Your task to perform on an android device: Open Wikipedia Image 0: 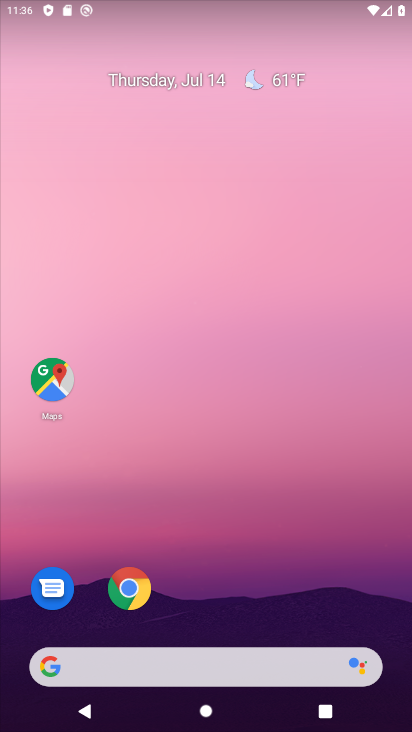
Step 0: drag from (211, 585) to (278, 89)
Your task to perform on an android device: Open Wikipedia Image 1: 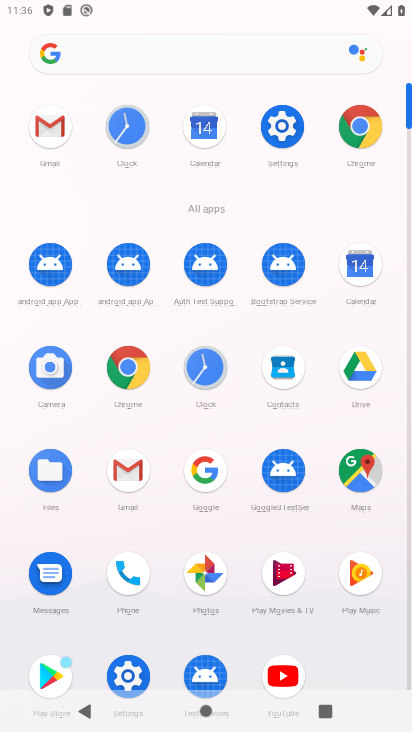
Step 1: click (138, 365)
Your task to perform on an android device: Open Wikipedia Image 2: 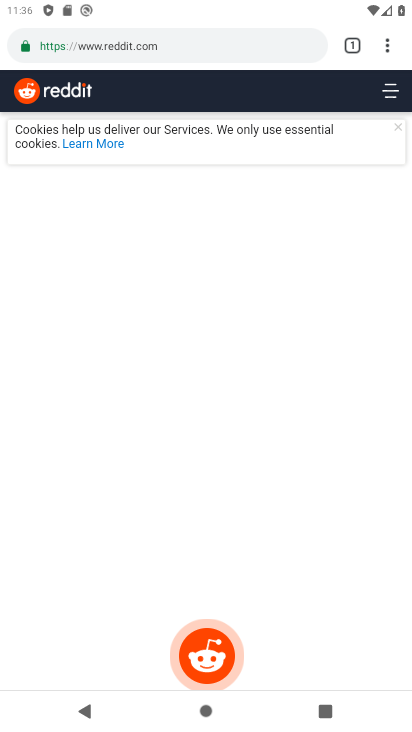
Step 2: click (131, 48)
Your task to perform on an android device: Open Wikipedia Image 3: 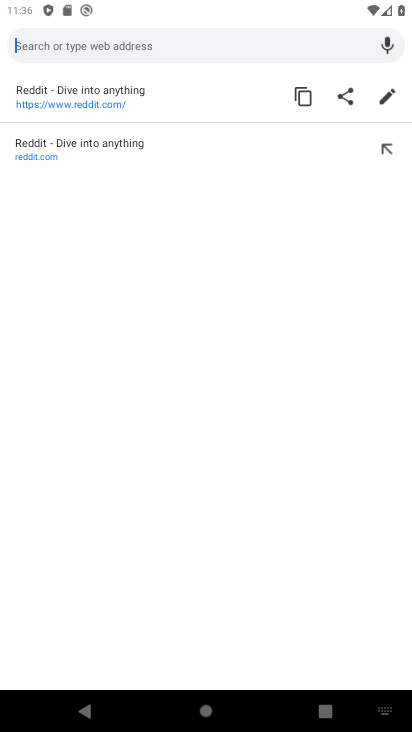
Step 3: type "wikipedia"
Your task to perform on an android device: Open Wikipedia Image 4: 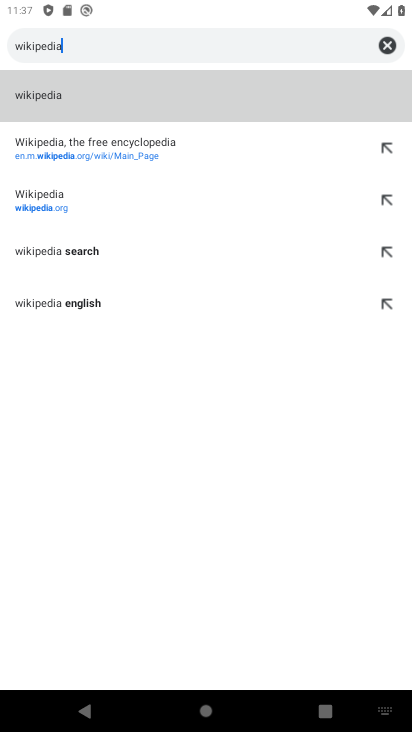
Step 4: click (47, 193)
Your task to perform on an android device: Open Wikipedia Image 5: 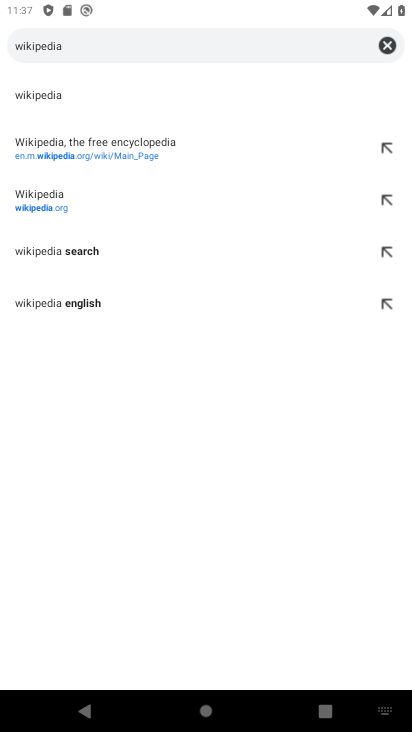
Step 5: click (60, 96)
Your task to perform on an android device: Open Wikipedia Image 6: 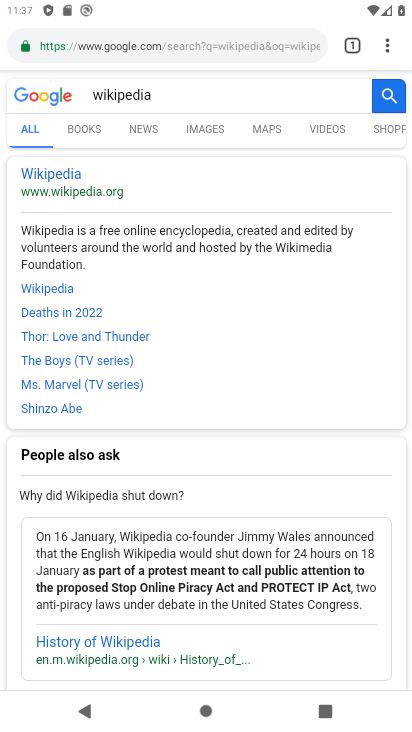
Step 6: click (136, 206)
Your task to perform on an android device: Open Wikipedia Image 7: 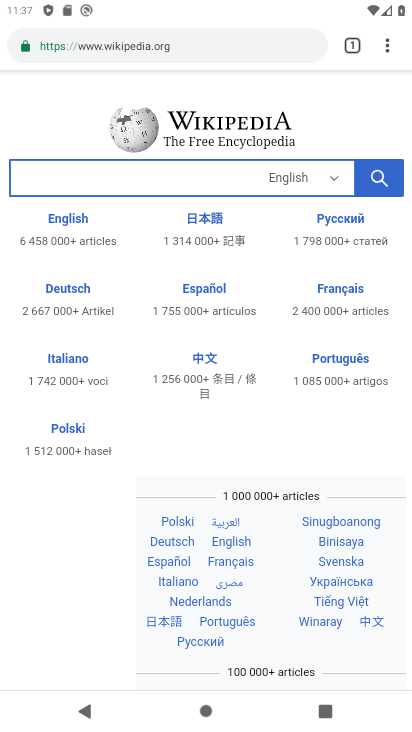
Step 7: task complete